Your task to perform on an android device: Search for Italian restaurants on Maps Image 0: 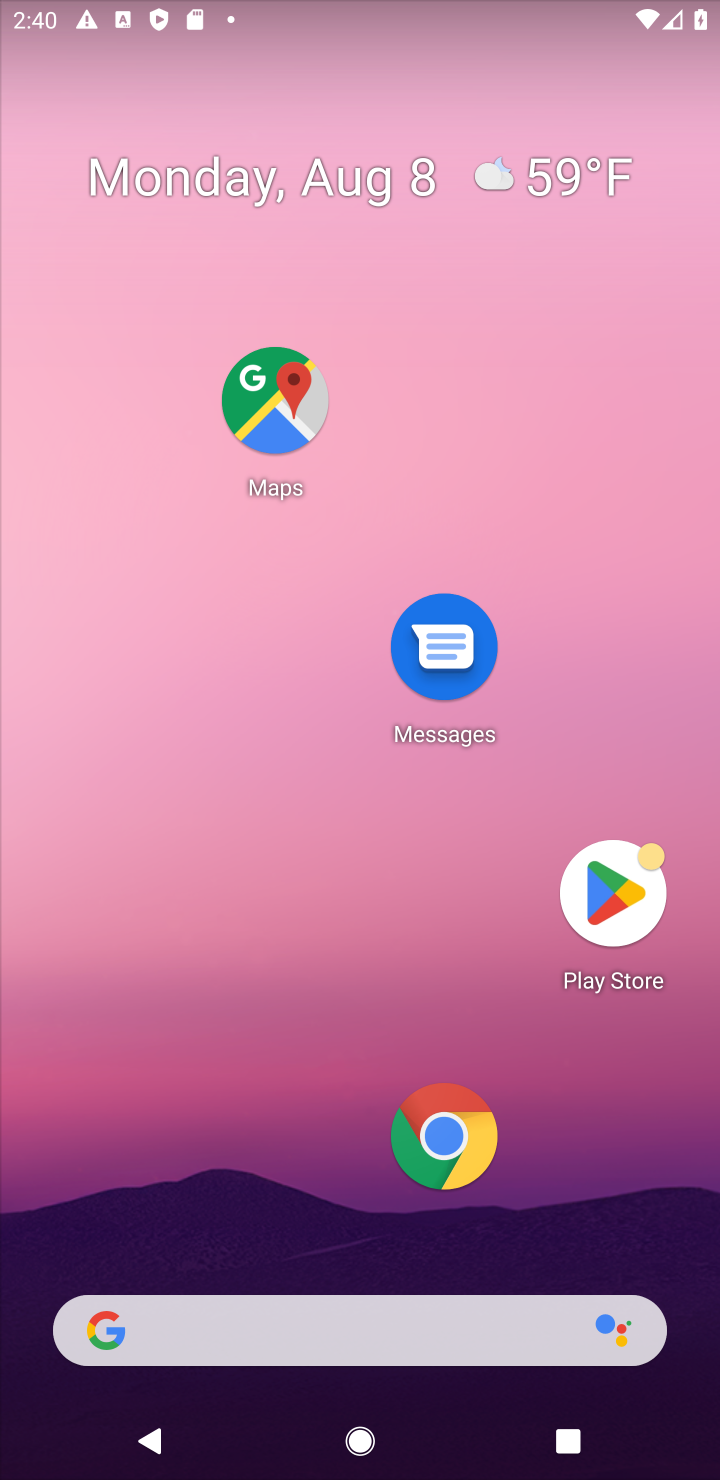
Step 0: click (288, 395)
Your task to perform on an android device: Search for Italian restaurants on Maps Image 1: 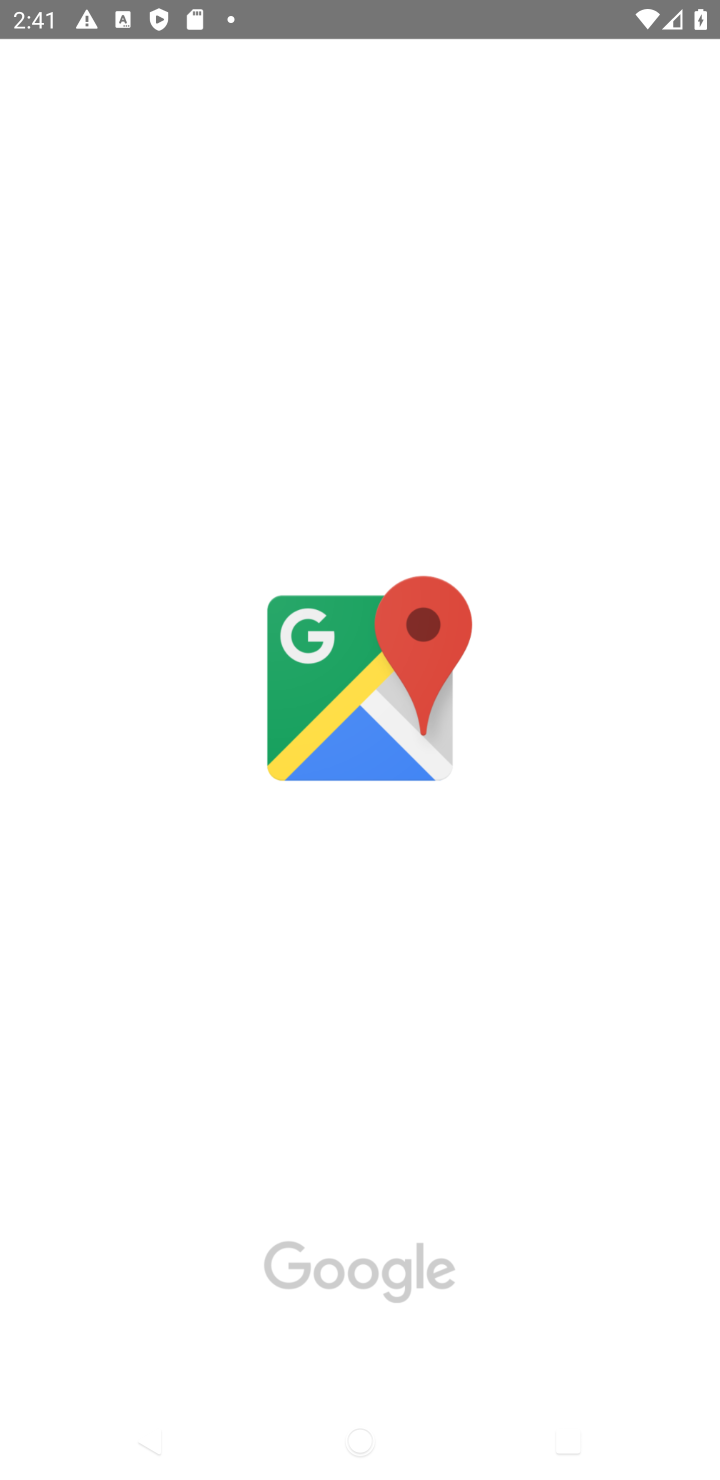
Step 1: task complete